Your task to perform on an android device: toggle improve location accuracy Image 0: 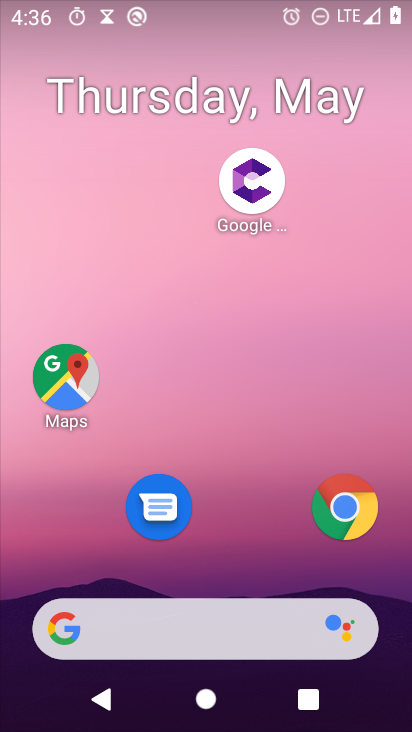
Step 0: click (236, 639)
Your task to perform on an android device: toggle improve location accuracy Image 1: 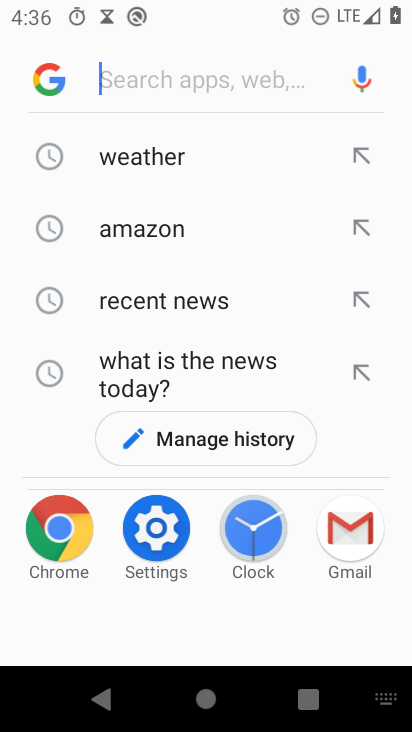
Step 1: press home button
Your task to perform on an android device: toggle improve location accuracy Image 2: 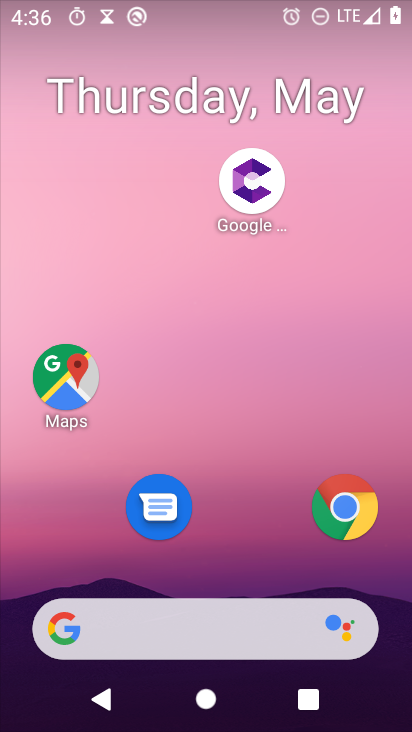
Step 2: drag from (266, 503) to (167, 136)
Your task to perform on an android device: toggle improve location accuracy Image 3: 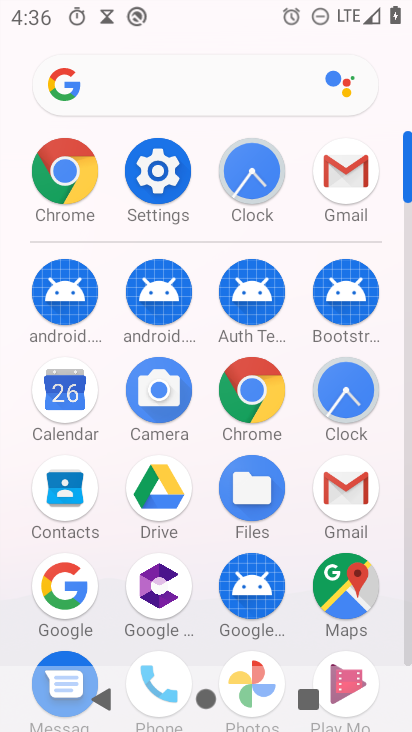
Step 3: click (155, 168)
Your task to perform on an android device: toggle improve location accuracy Image 4: 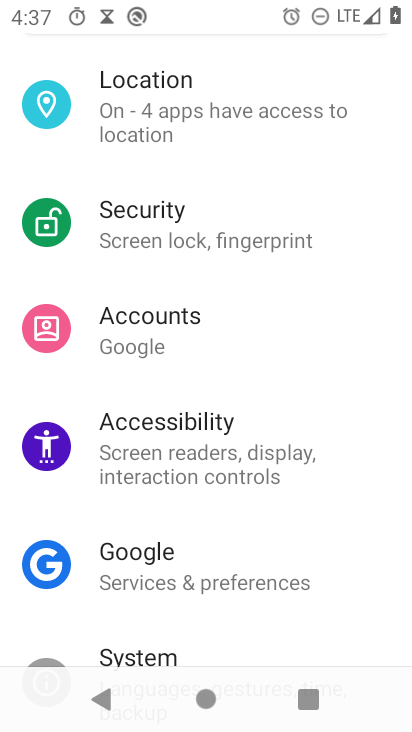
Step 4: click (230, 126)
Your task to perform on an android device: toggle improve location accuracy Image 5: 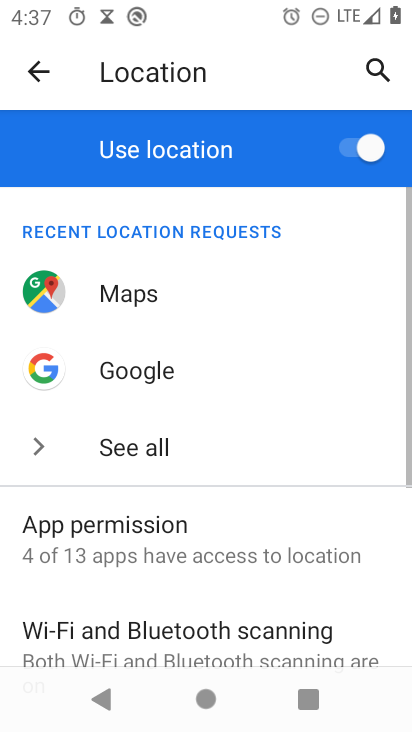
Step 5: drag from (245, 611) to (217, 162)
Your task to perform on an android device: toggle improve location accuracy Image 6: 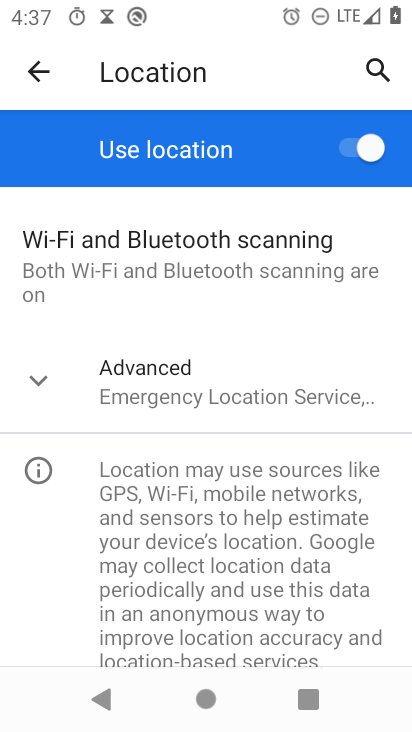
Step 6: click (28, 377)
Your task to perform on an android device: toggle improve location accuracy Image 7: 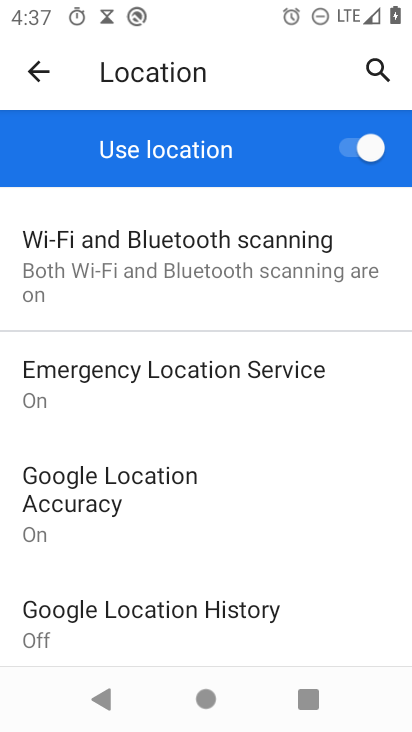
Step 7: drag from (342, 617) to (299, 370)
Your task to perform on an android device: toggle improve location accuracy Image 8: 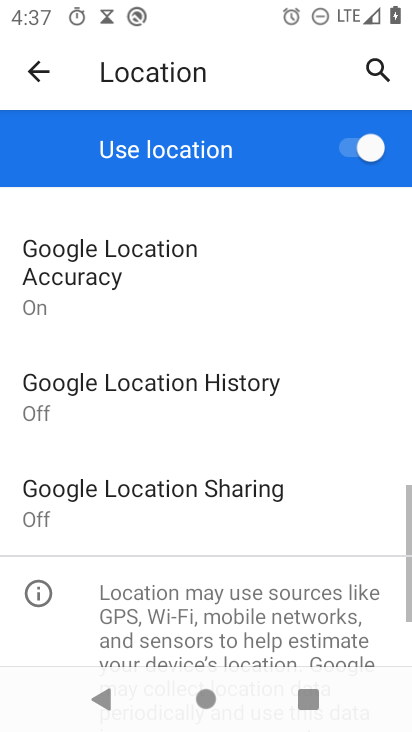
Step 8: click (144, 267)
Your task to perform on an android device: toggle improve location accuracy Image 9: 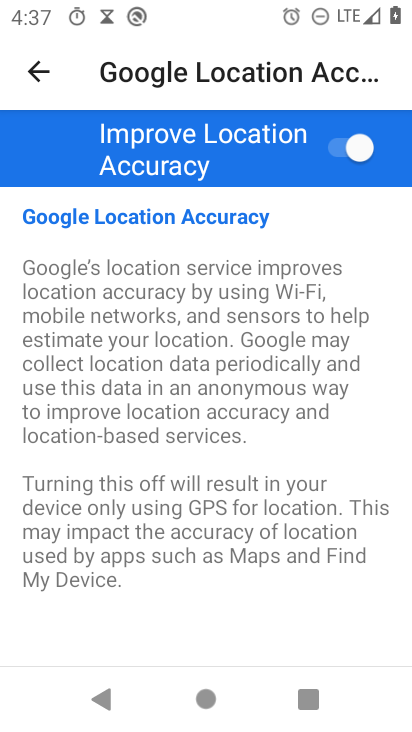
Step 9: click (340, 149)
Your task to perform on an android device: toggle improve location accuracy Image 10: 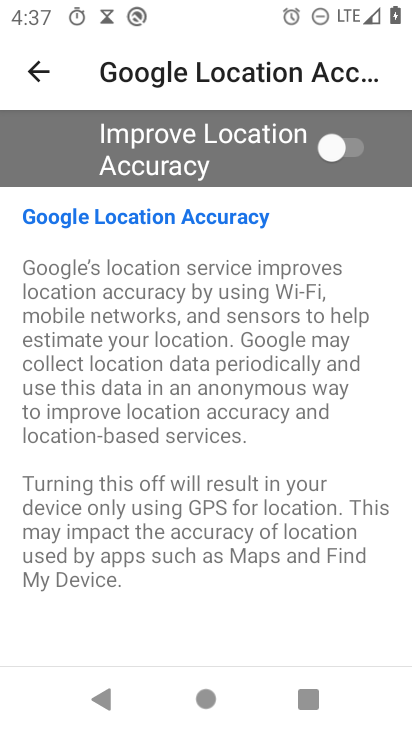
Step 10: task complete